Your task to perform on an android device: Go to Yahoo.com Image 0: 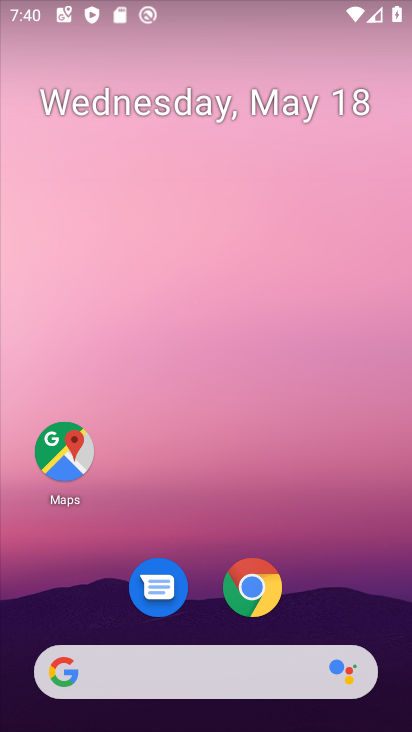
Step 0: click (257, 585)
Your task to perform on an android device: Go to Yahoo.com Image 1: 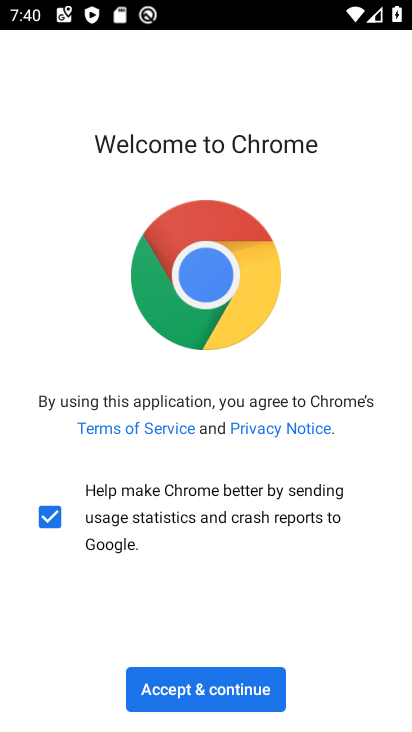
Step 1: click (159, 694)
Your task to perform on an android device: Go to Yahoo.com Image 2: 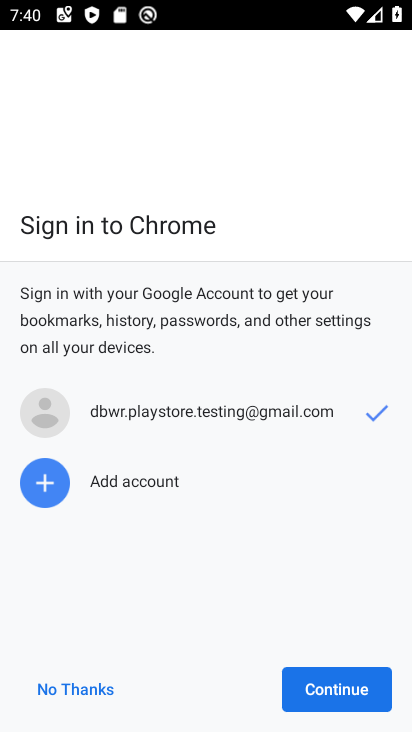
Step 2: click (314, 687)
Your task to perform on an android device: Go to Yahoo.com Image 3: 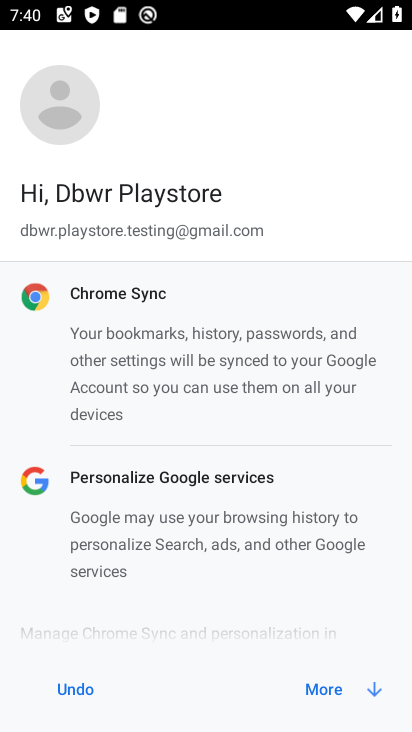
Step 3: click (314, 687)
Your task to perform on an android device: Go to Yahoo.com Image 4: 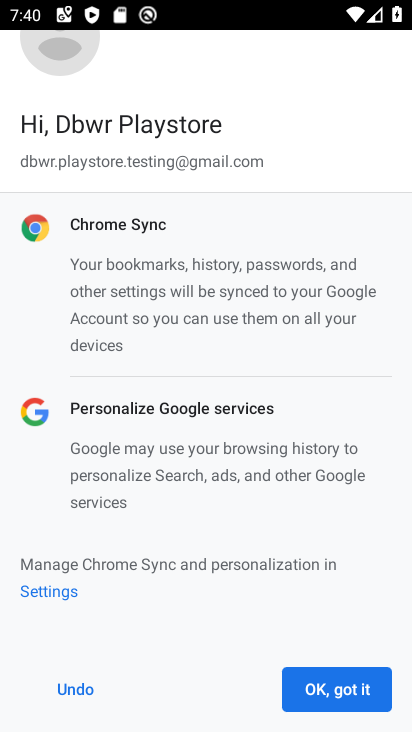
Step 4: click (314, 687)
Your task to perform on an android device: Go to Yahoo.com Image 5: 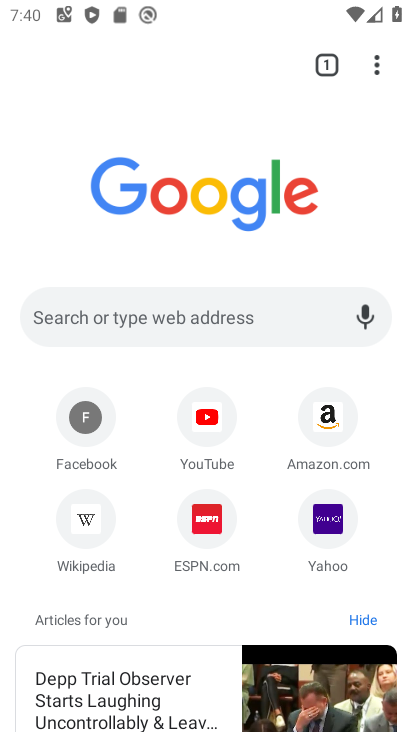
Step 5: click (333, 508)
Your task to perform on an android device: Go to Yahoo.com Image 6: 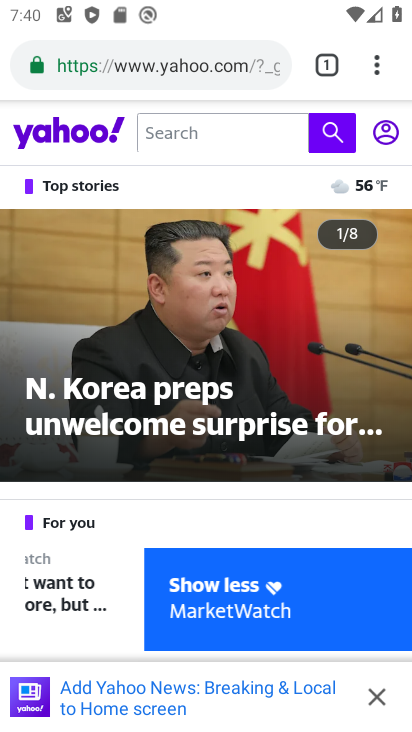
Step 6: task complete